Your task to perform on an android device: turn notification dots off Image 0: 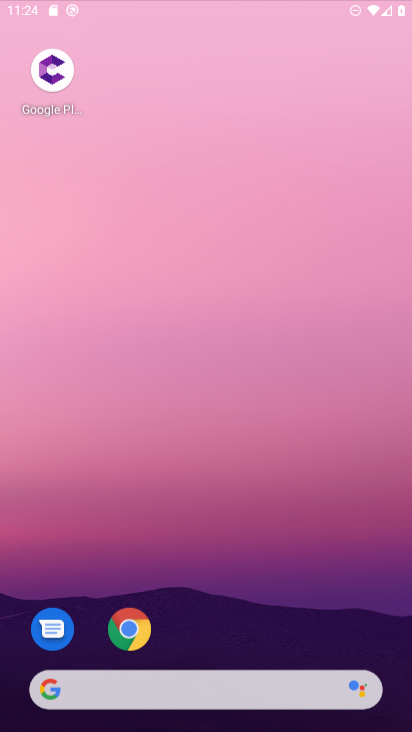
Step 0: click (262, 1)
Your task to perform on an android device: turn notification dots off Image 1: 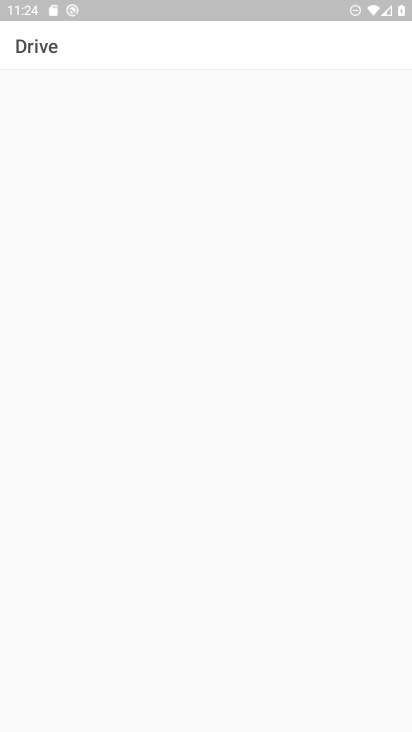
Step 1: press home button
Your task to perform on an android device: turn notification dots off Image 2: 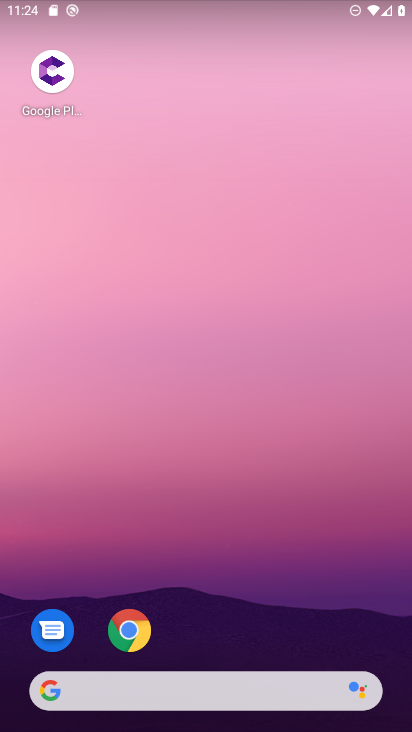
Step 2: drag from (248, 181) to (223, 14)
Your task to perform on an android device: turn notification dots off Image 3: 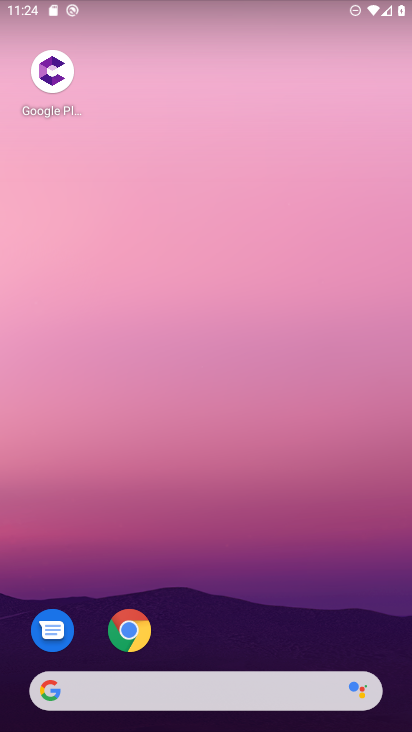
Step 3: drag from (268, 593) to (289, 26)
Your task to perform on an android device: turn notification dots off Image 4: 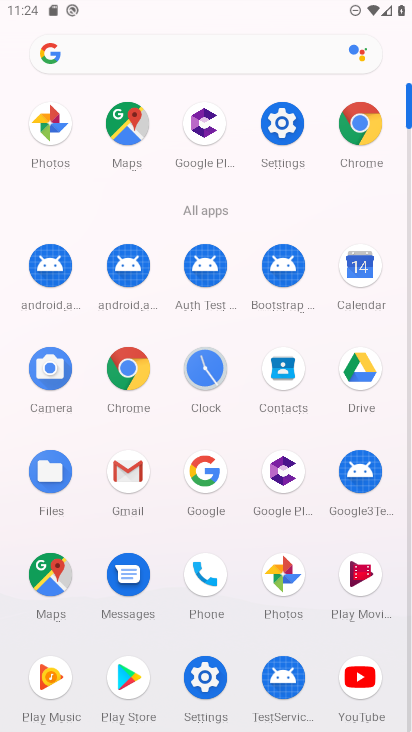
Step 4: click (288, 132)
Your task to perform on an android device: turn notification dots off Image 5: 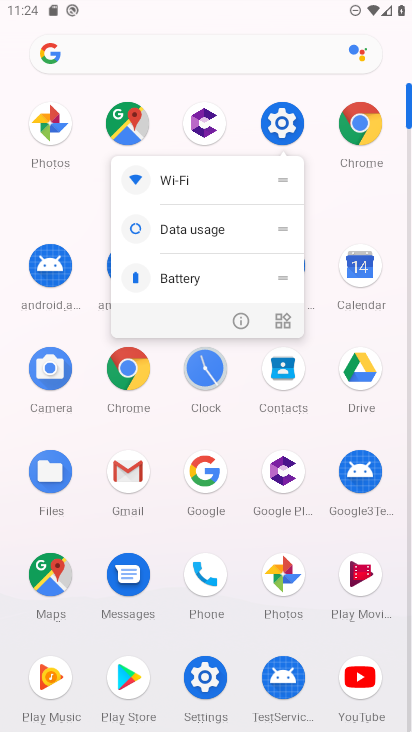
Step 5: click (280, 117)
Your task to perform on an android device: turn notification dots off Image 6: 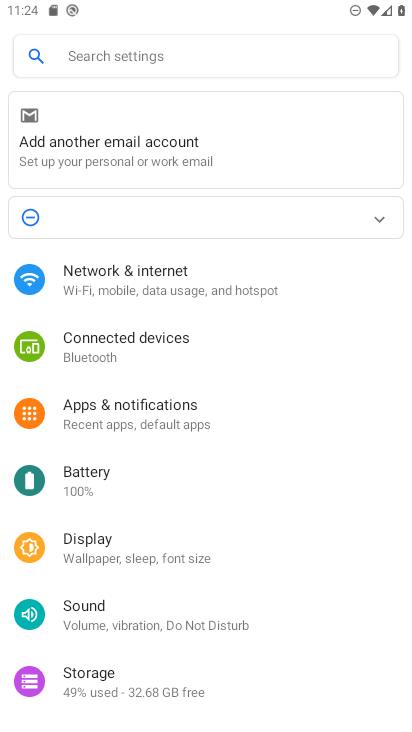
Step 6: click (143, 415)
Your task to perform on an android device: turn notification dots off Image 7: 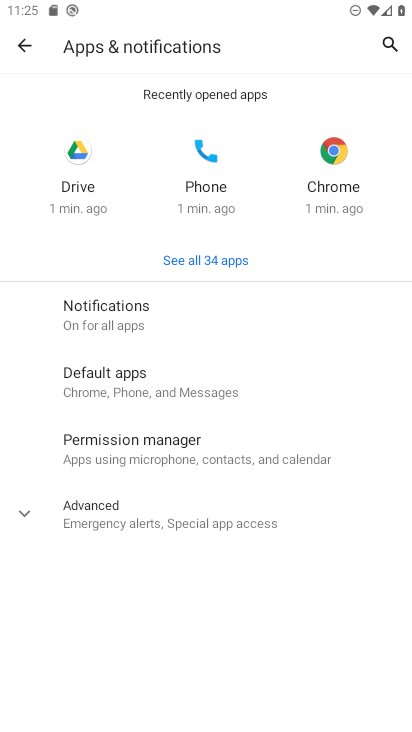
Step 7: click (65, 315)
Your task to perform on an android device: turn notification dots off Image 8: 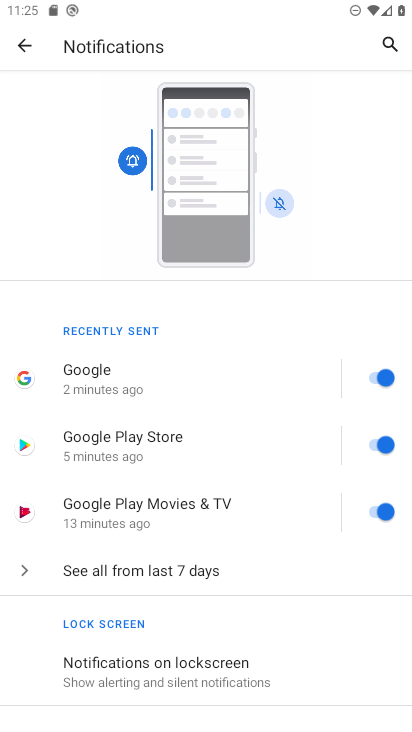
Step 8: drag from (121, 681) to (203, 342)
Your task to perform on an android device: turn notification dots off Image 9: 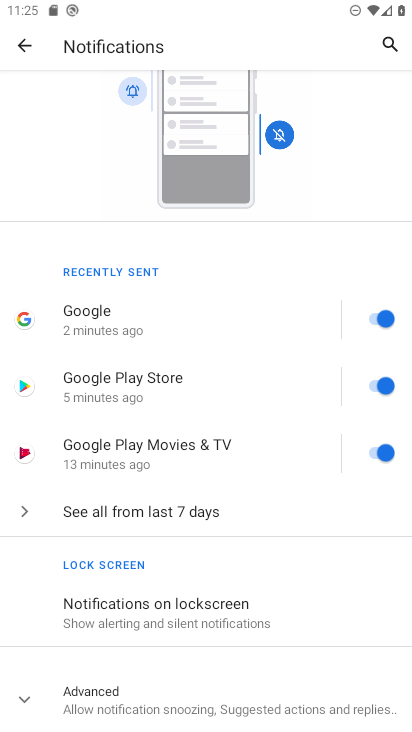
Step 9: drag from (140, 654) to (251, 326)
Your task to perform on an android device: turn notification dots off Image 10: 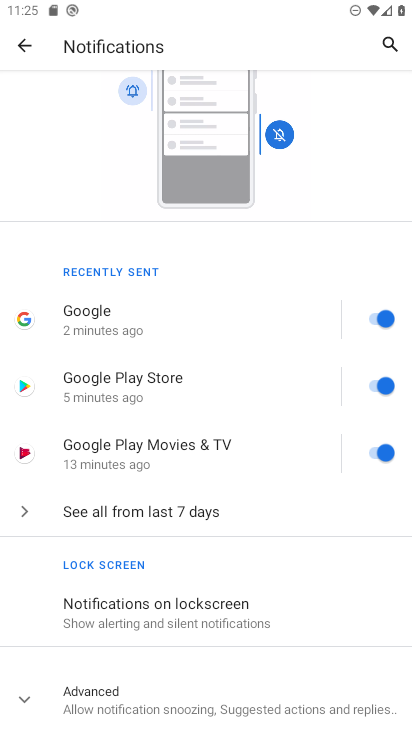
Step 10: click (131, 696)
Your task to perform on an android device: turn notification dots off Image 11: 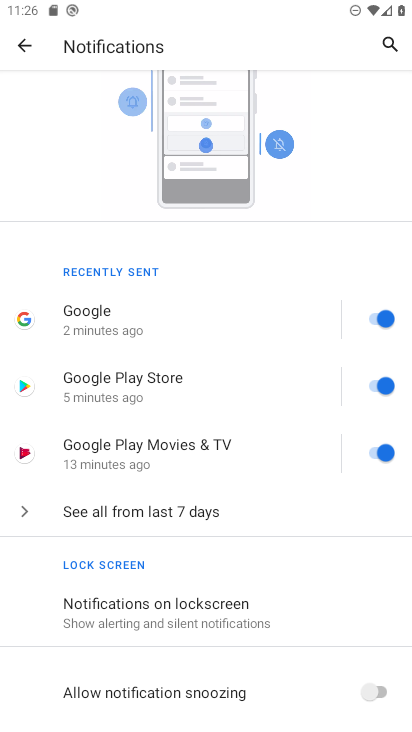
Step 11: drag from (131, 695) to (215, 291)
Your task to perform on an android device: turn notification dots off Image 12: 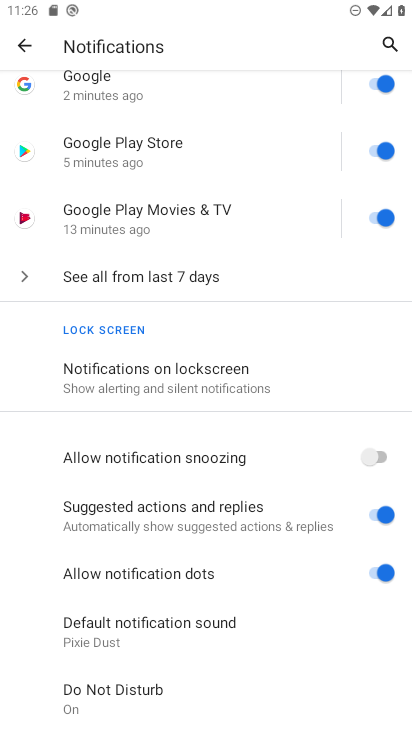
Step 12: click (386, 565)
Your task to perform on an android device: turn notification dots off Image 13: 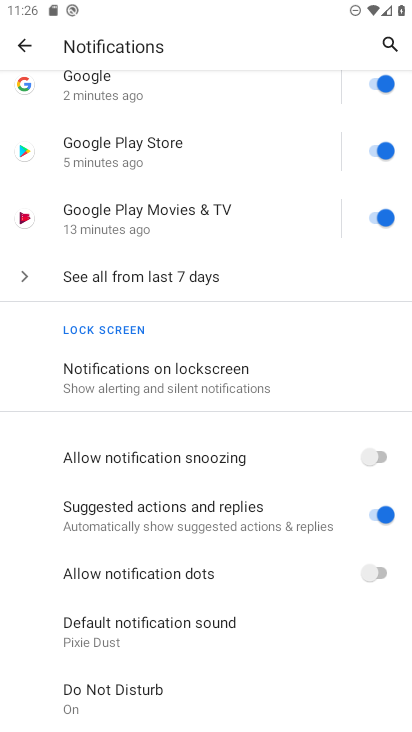
Step 13: task complete